Your task to perform on an android device: Go to Yahoo.com Image 0: 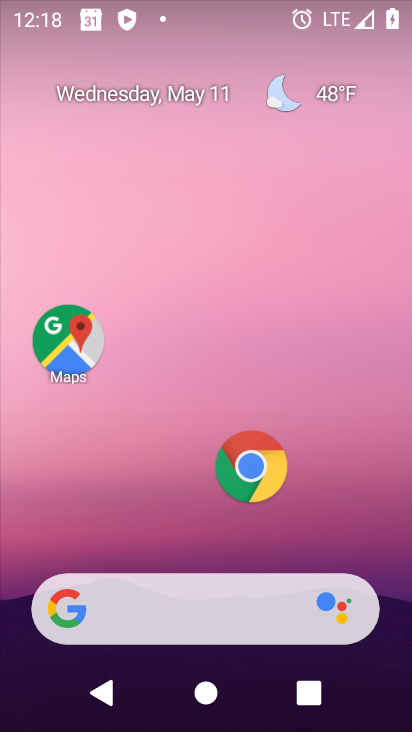
Step 0: click (247, 464)
Your task to perform on an android device: Go to Yahoo.com Image 1: 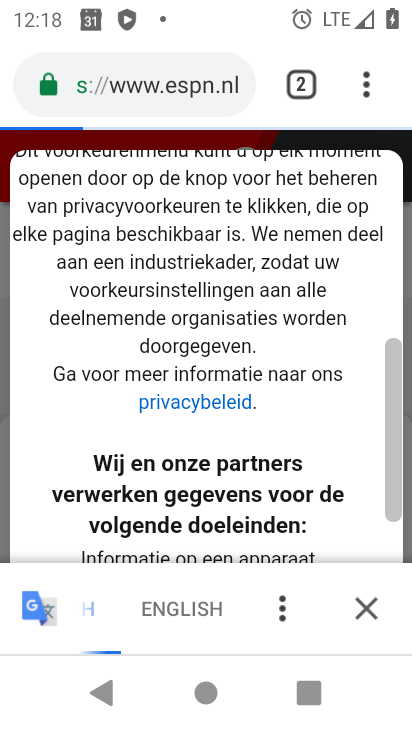
Step 1: click (289, 80)
Your task to perform on an android device: Go to Yahoo.com Image 2: 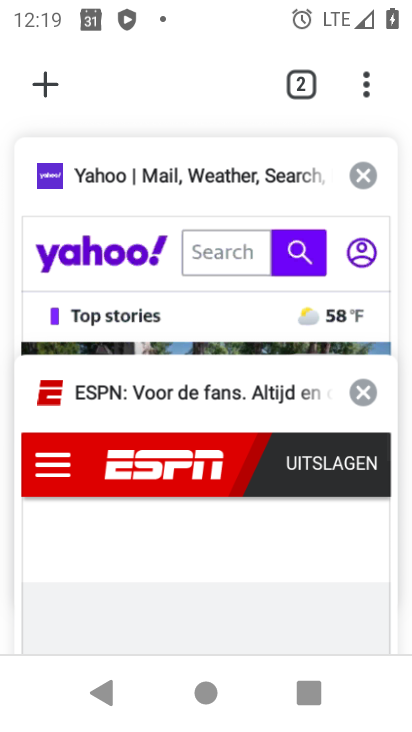
Step 2: click (13, 79)
Your task to perform on an android device: Go to Yahoo.com Image 3: 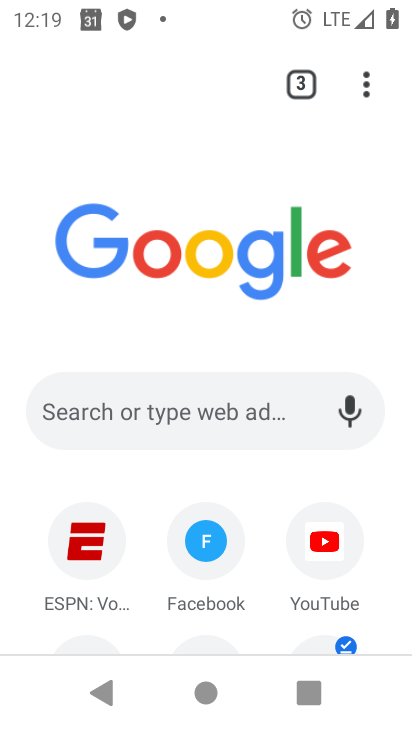
Step 3: drag from (172, 579) to (272, 173)
Your task to perform on an android device: Go to Yahoo.com Image 4: 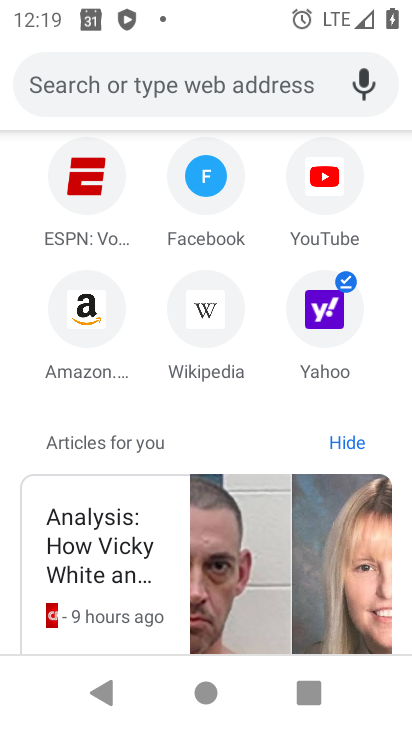
Step 4: click (319, 332)
Your task to perform on an android device: Go to Yahoo.com Image 5: 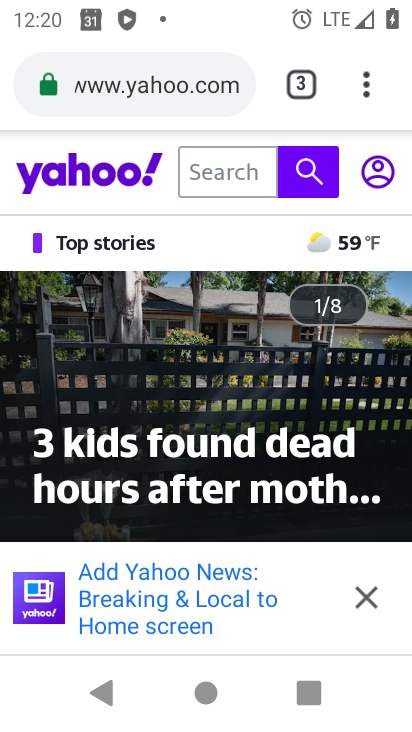
Step 5: task complete